Your task to perform on an android device: Open Amazon Image 0: 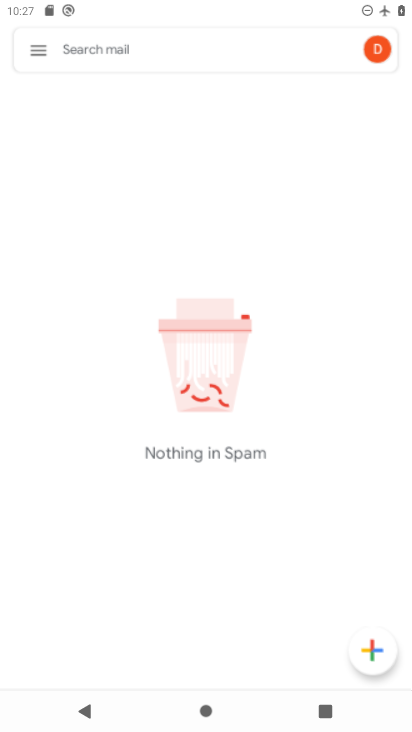
Step 0: drag from (264, 590) to (251, 183)
Your task to perform on an android device: Open Amazon Image 1: 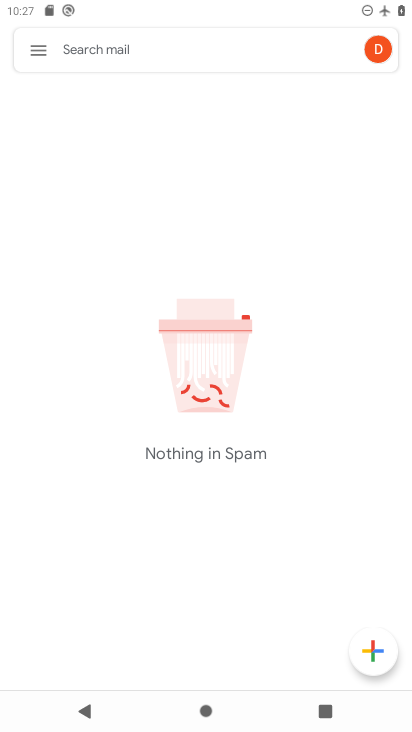
Step 1: press home button
Your task to perform on an android device: Open Amazon Image 2: 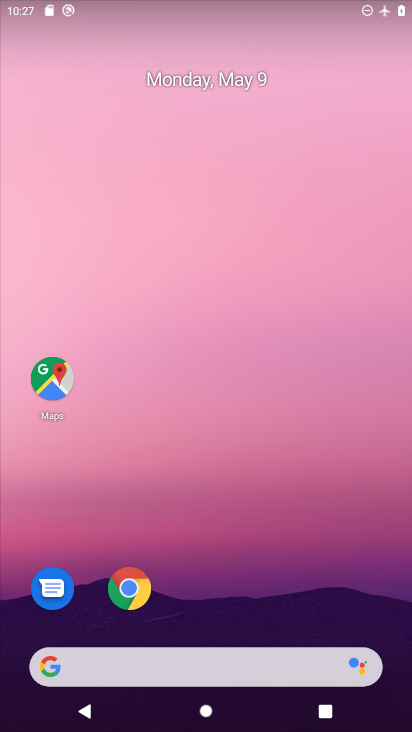
Step 2: drag from (209, 618) to (259, 38)
Your task to perform on an android device: Open Amazon Image 3: 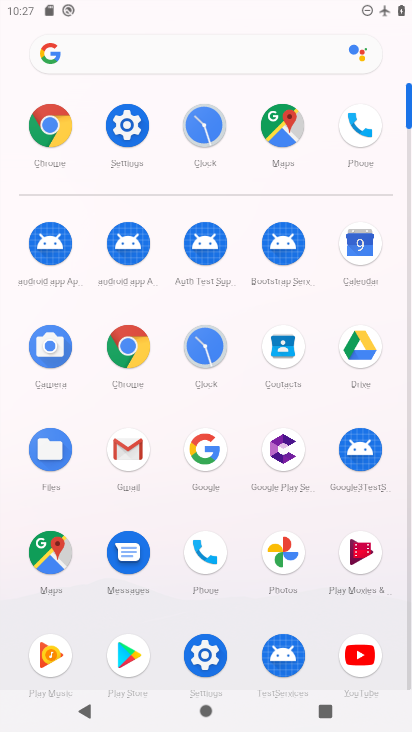
Step 3: click (132, 128)
Your task to perform on an android device: Open Amazon Image 4: 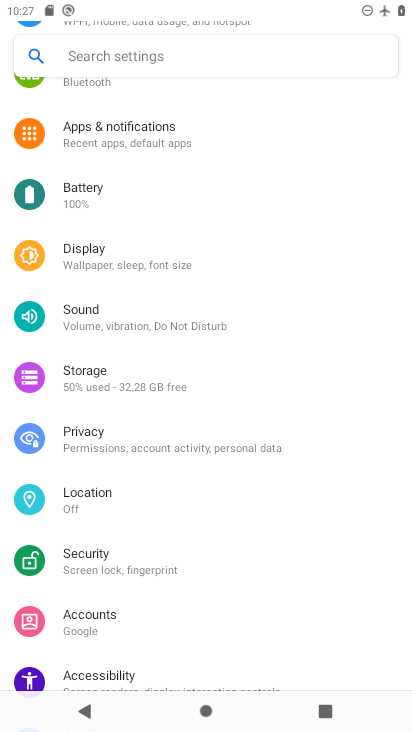
Step 4: drag from (343, 120) to (248, 499)
Your task to perform on an android device: Open Amazon Image 5: 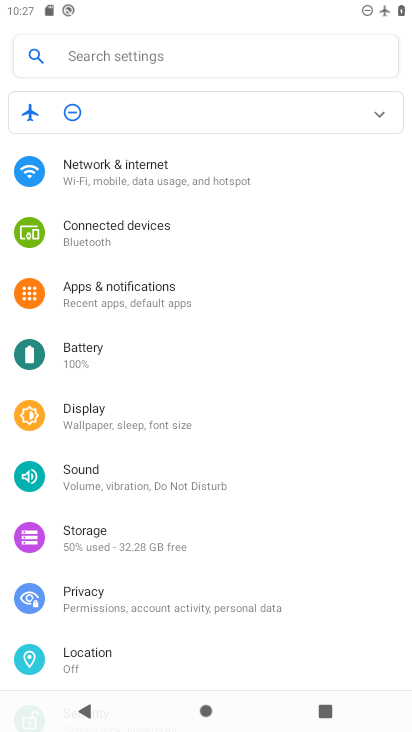
Step 5: click (296, 186)
Your task to perform on an android device: Open Amazon Image 6: 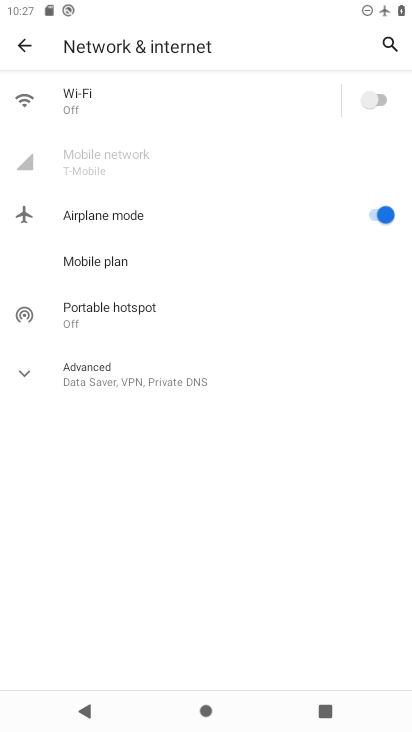
Step 6: click (373, 227)
Your task to perform on an android device: Open Amazon Image 7: 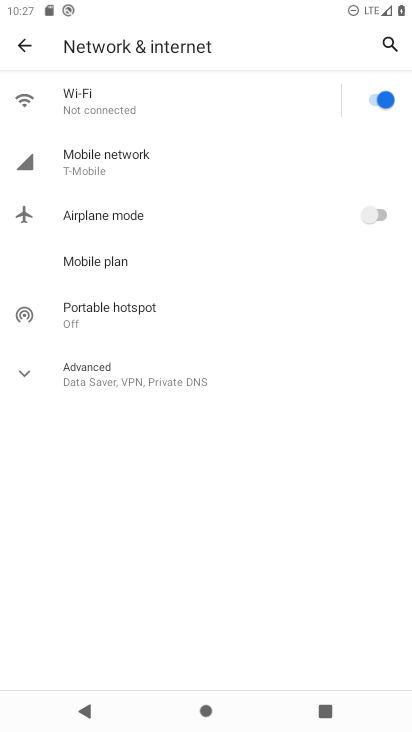
Step 7: click (220, 711)
Your task to perform on an android device: Open Amazon Image 8: 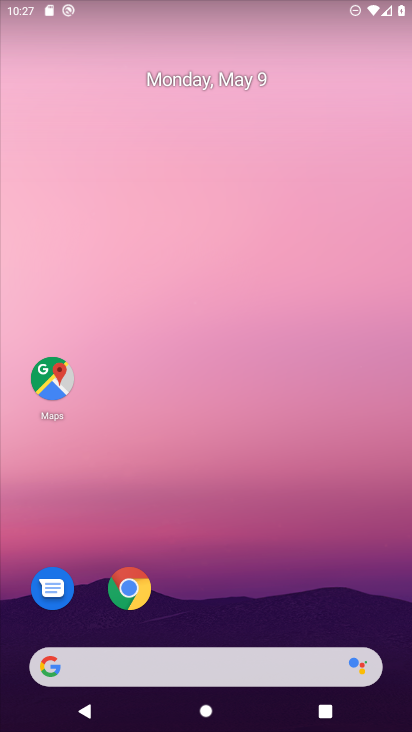
Step 8: click (132, 595)
Your task to perform on an android device: Open Amazon Image 9: 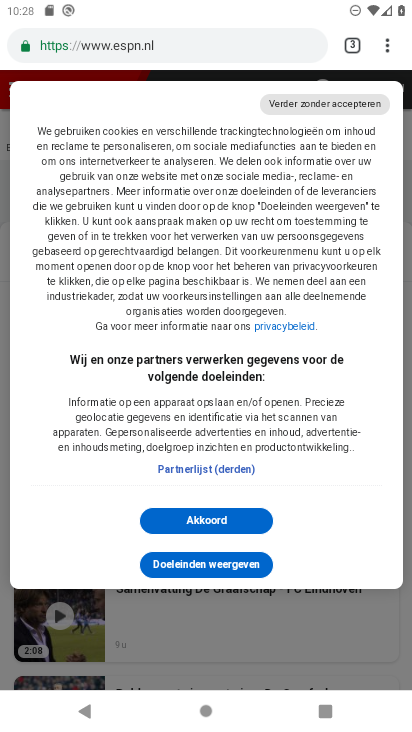
Step 9: click (351, 49)
Your task to perform on an android device: Open Amazon Image 10: 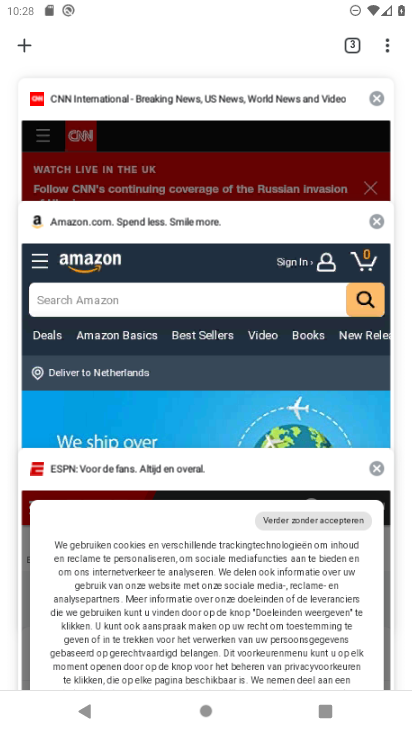
Step 10: click (24, 49)
Your task to perform on an android device: Open Amazon Image 11: 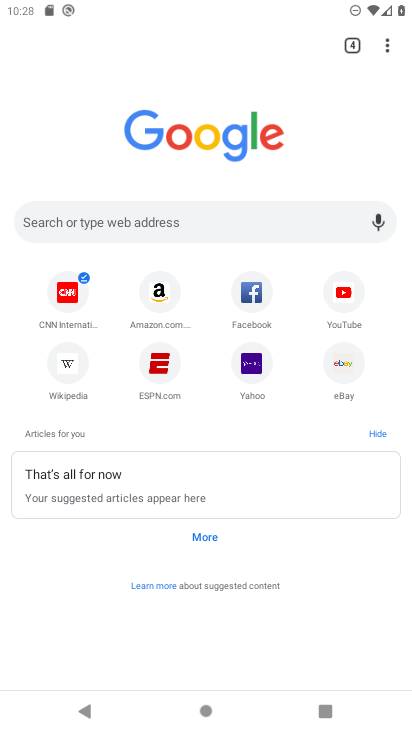
Step 11: click (155, 314)
Your task to perform on an android device: Open Amazon Image 12: 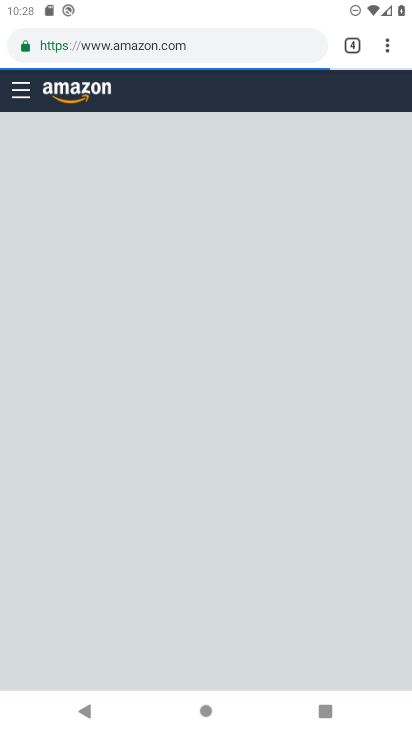
Step 12: task complete